Your task to perform on an android device: Go to Yahoo.com Image 0: 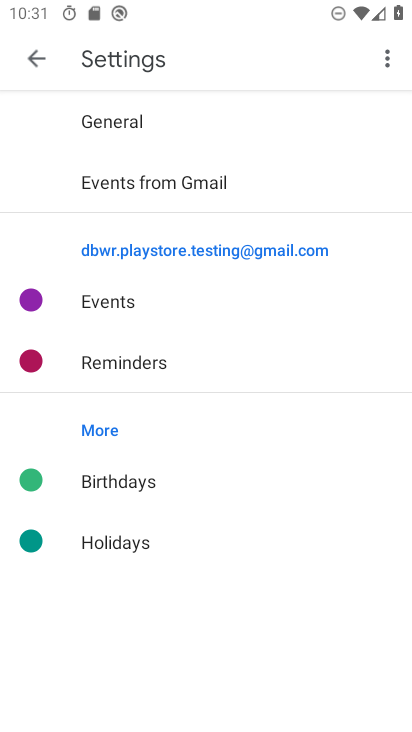
Step 0: press home button
Your task to perform on an android device: Go to Yahoo.com Image 1: 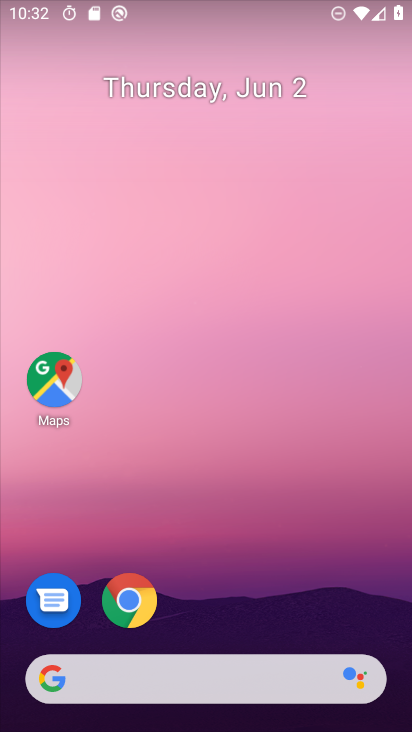
Step 1: drag from (263, 607) to (264, 77)
Your task to perform on an android device: Go to Yahoo.com Image 2: 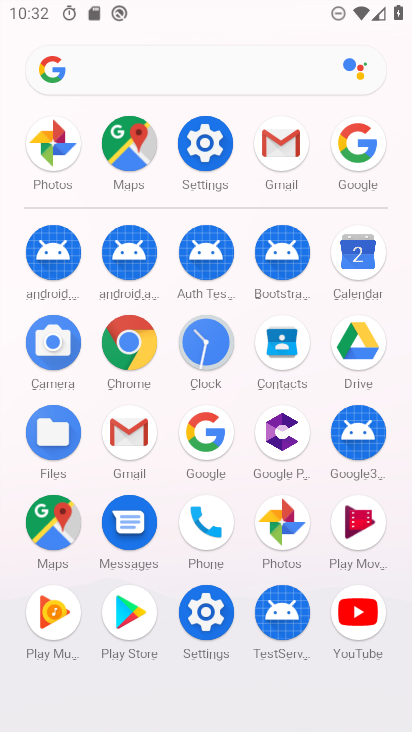
Step 2: click (131, 329)
Your task to perform on an android device: Go to Yahoo.com Image 3: 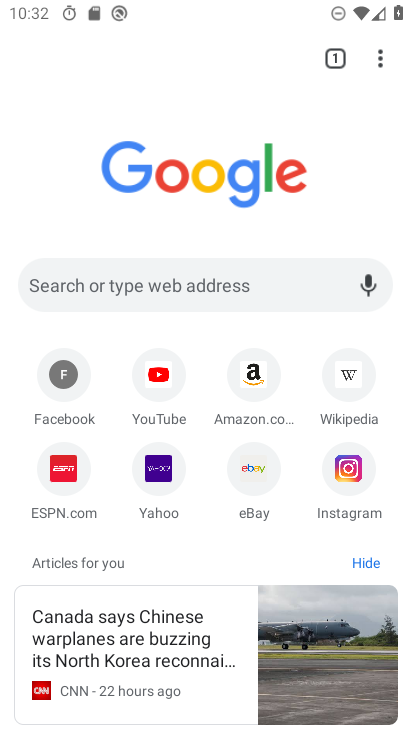
Step 3: click (159, 463)
Your task to perform on an android device: Go to Yahoo.com Image 4: 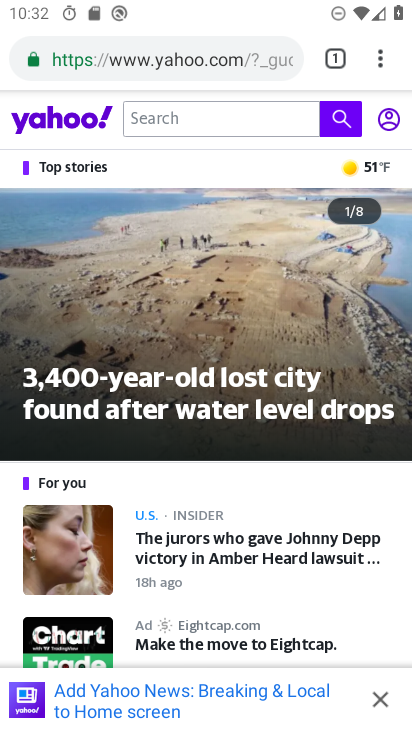
Step 4: task complete